Your task to perform on an android device: Open calendar and show me the second week of next month Image 0: 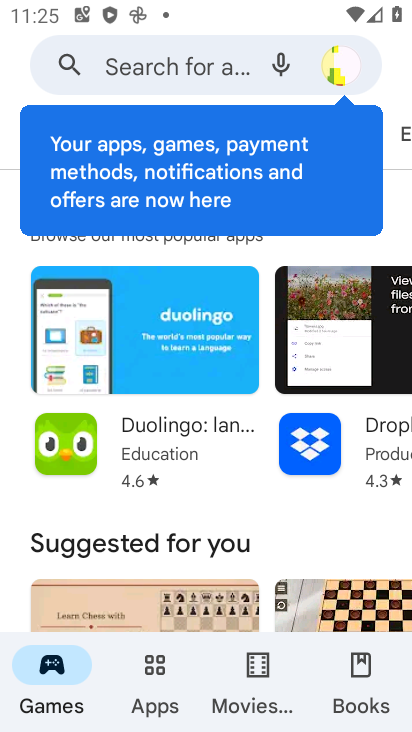
Step 0: press home button
Your task to perform on an android device: Open calendar and show me the second week of next month Image 1: 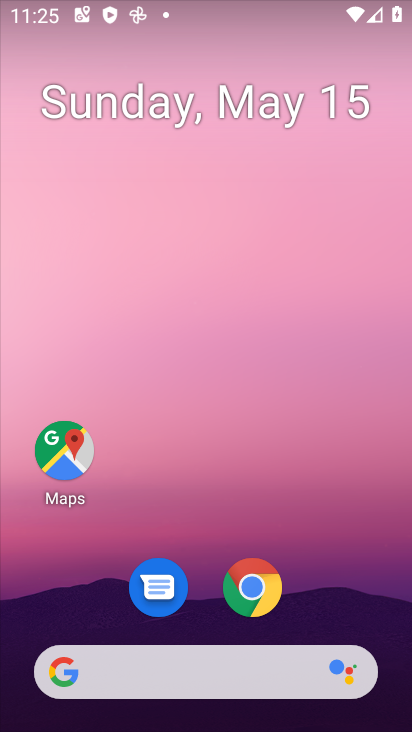
Step 1: drag from (403, 663) to (243, 111)
Your task to perform on an android device: Open calendar and show me the second week of next month Image 2: 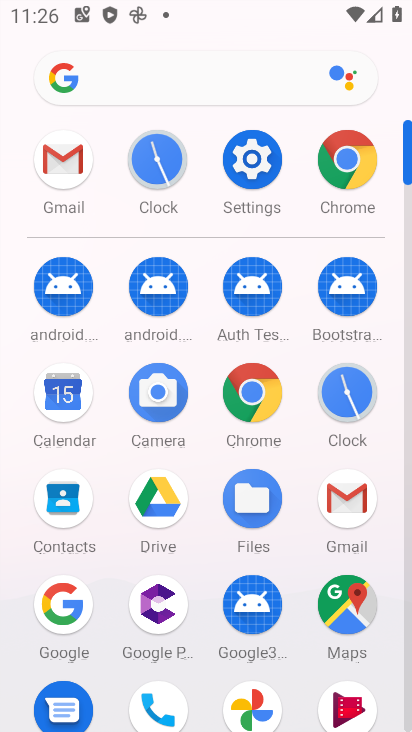
Step 2: click (62, 380)
Your task to perform on an android device: Open calendar and show me the second week of next month Image 3: 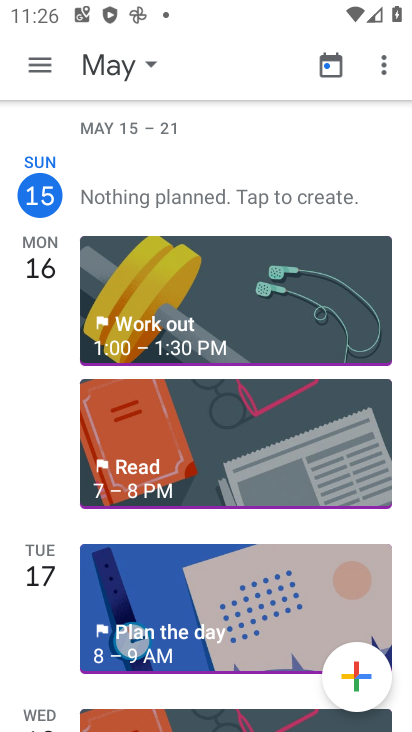
Step 3: click (110, 55)
Your task to perform on an android device: Open calendar and show me the second week of next month Image 4: 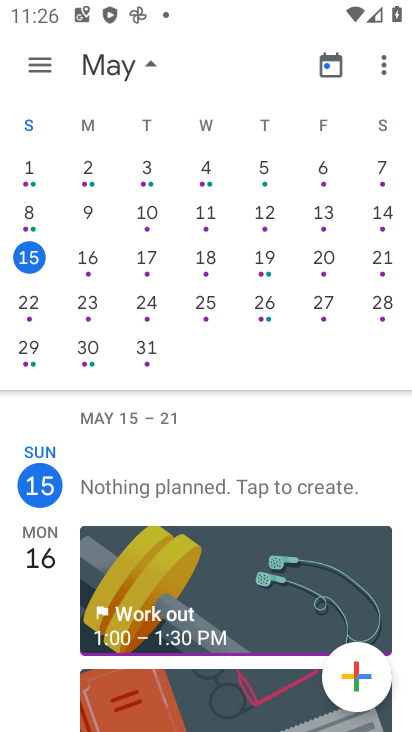
Step 4: drag from (356, 244) to (32, 249)
Your task to perform on an android device: Open calendar and show me the second week of next month Image 5: 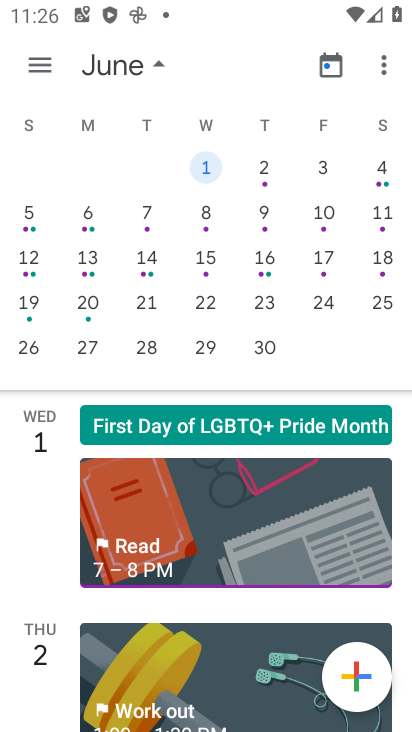
Step 5: click (22, 259)
Your task to perform on an android device: Open calendar and show me the second week of next month Image 6: 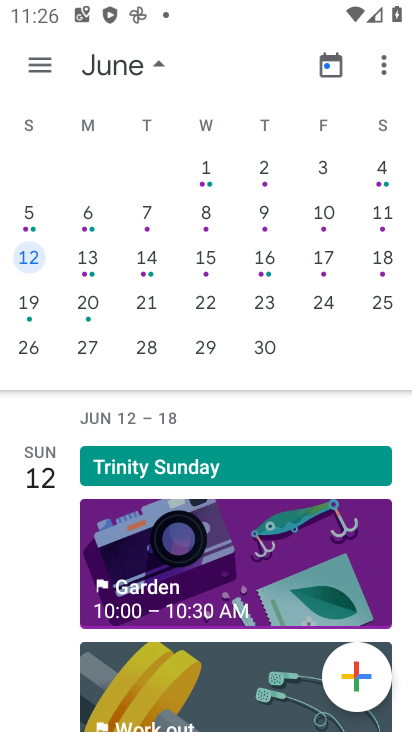
Step 6: click (86, 258)
Your task to perform on an android device: Open calendar and show me the second week of next month Image 7: 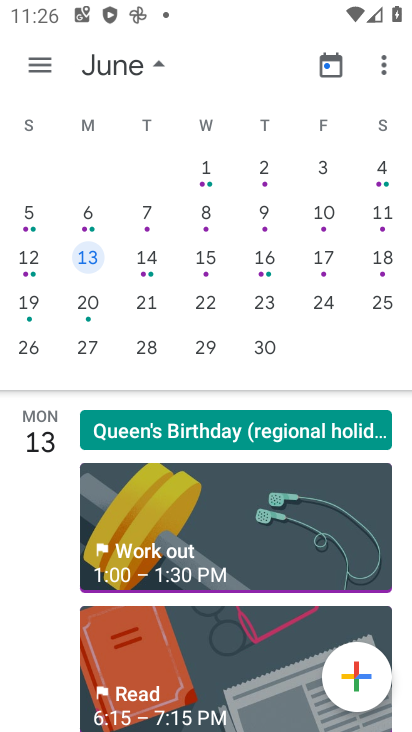
Step 7: task complete